Your task to perform on an android device: Set the phone to "Do not disturb". Image 0: 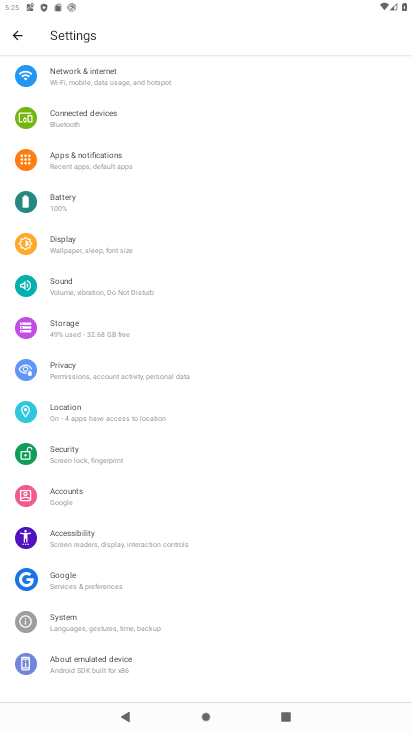
Step 0: press home button
Your task to perform on an android device: Set the phone to "Do not disturb". Image 1: 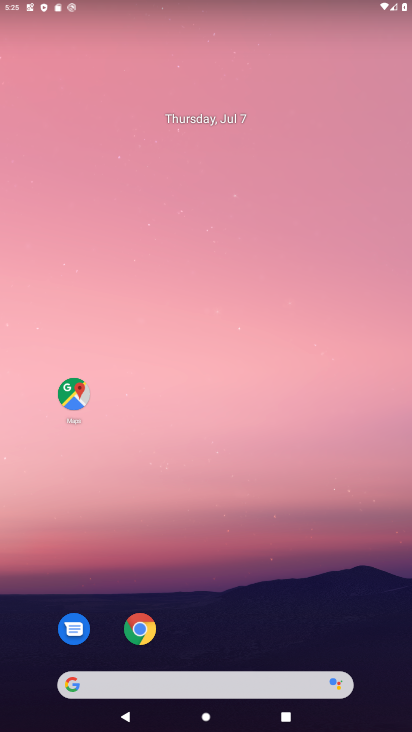
Step 1: drag from (147, 2) to (188, 413)
Your task to perform on an android device: Set the phone to "Do not disturb". Image 2: 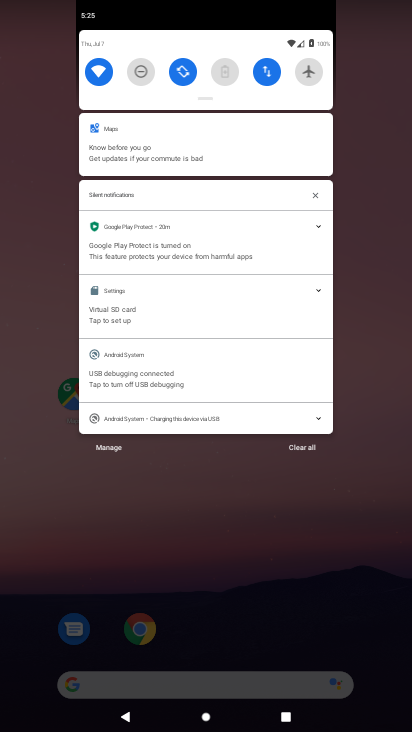
Step 2: click (139, 62)
Your task to perform on an android device: Set the phone to "Do not disturb". Image 3: 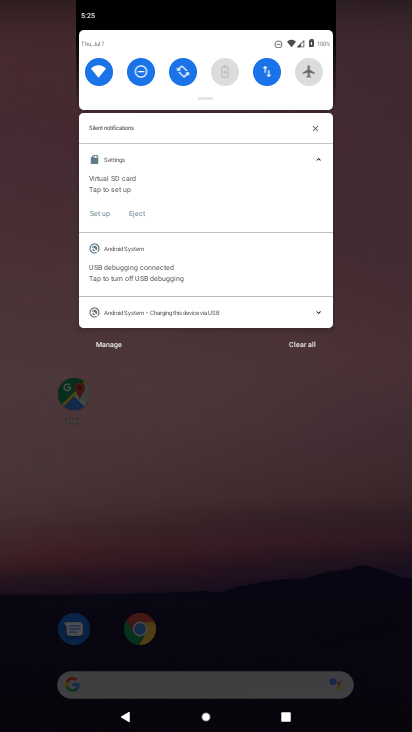
Step 3: task complete